Your task to perform on an android device: open chrome and create a bookmark for the current page Image 0: 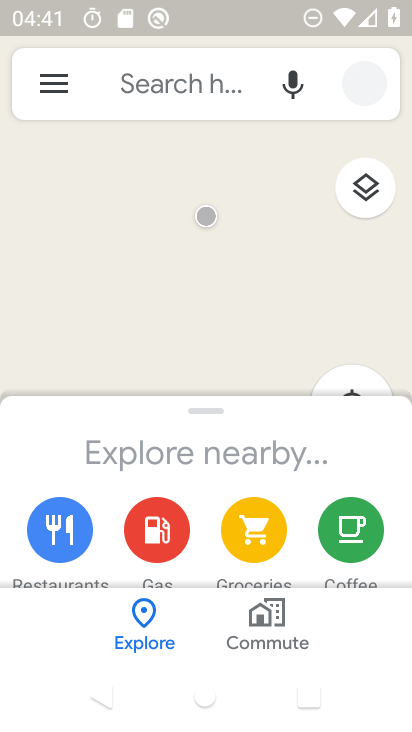
Step 0: press home button
Your task to perform on an android device: open chrome and create a bookmark for the current page Image 1: 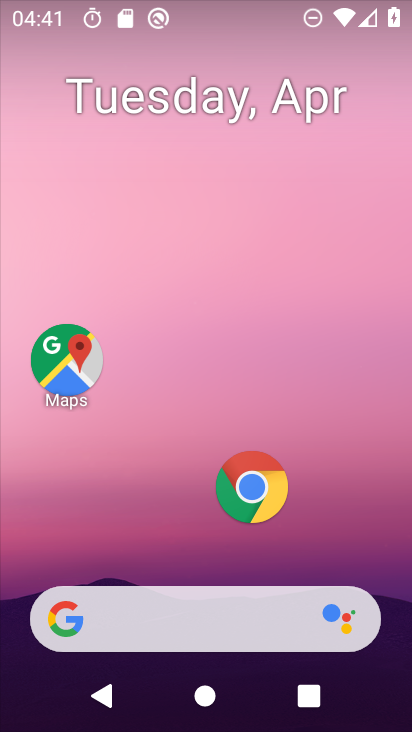
Step 1: click (246, 477)
Your task to perform on an android device: open chrome and create a bookmark for the current page Image 2: 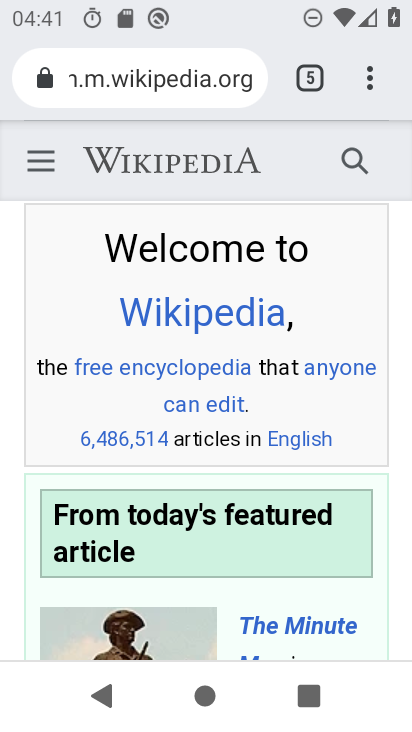
Step 2: task complete